Your task to perform on an android device: open app "Speedtest by Ookla" Image 0: 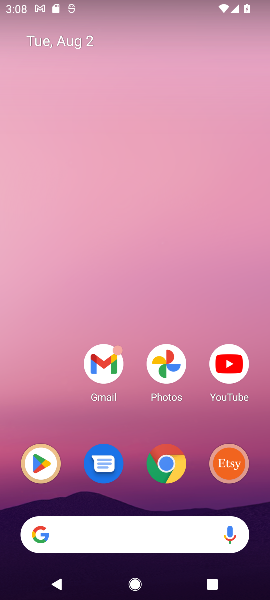
Step 0: click (43, 463)
Your task to perform on an android device: open app "Speedtest by Ookla" Image 1: 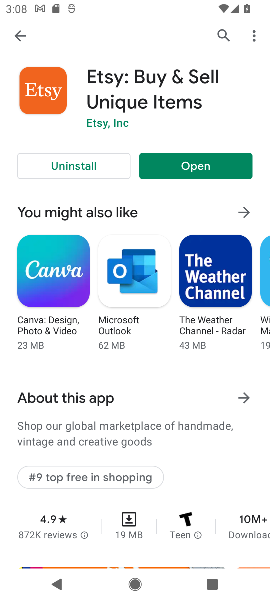
Step 1: click (219, 38)
Your task to perform on an android device: open app "Speedtest by Ookla" Image 2: 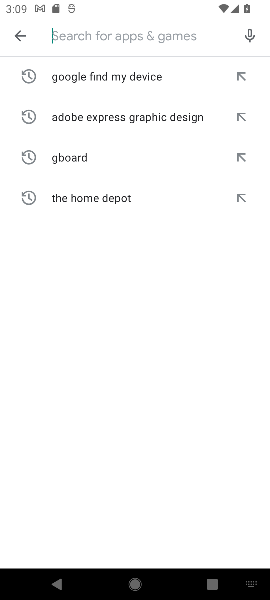
Step 2: type "Speedtest by Ookla"
Your task to perform on an android device: open app "Speedtest by Ookla" Image 3: 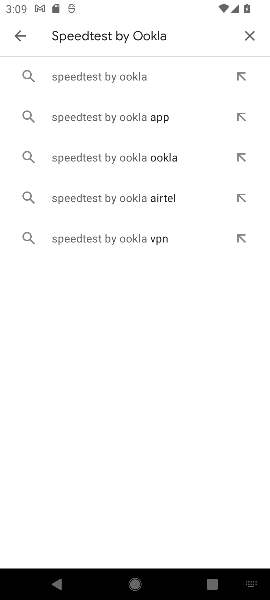
Step 3: click (114, 75)
Your task to perform on an android device: open app "Speedtest by Ookla" Image 4: 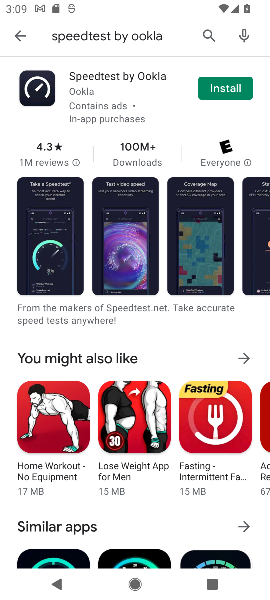
Step 4: click (227, 87)
Your task to perform on an android device: open app "Speedtest by Ookla" Image 5: 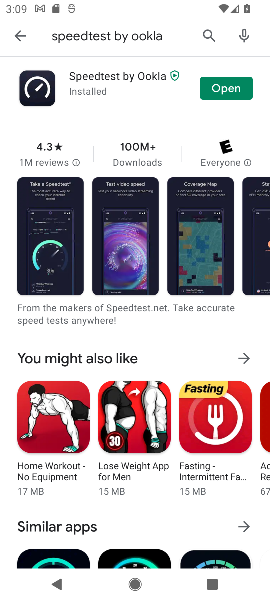
Step 5: task complete